Your task to perform on an android device: Check the best rated table lamp on Crate and Barrel Image 0: 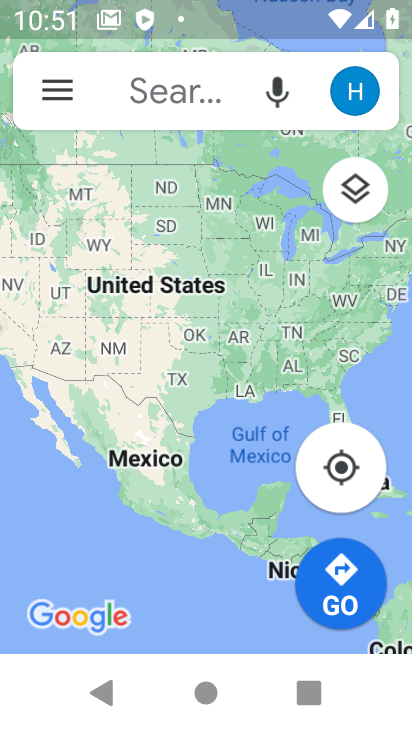
Step 0: press home button
Your task to perform on an android device: Check the best rated table lamp on Crate and Barrel Image 1: 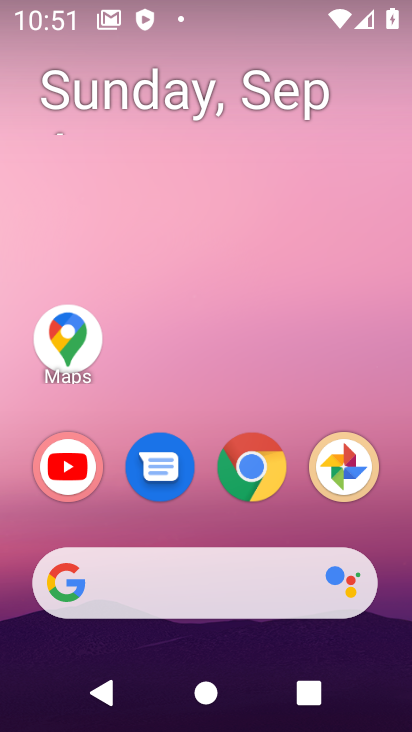
Step 1: click (244, 478)
Your task to perform on an android device: Check the best rated table lamp on Crate and Barrel Image 2: 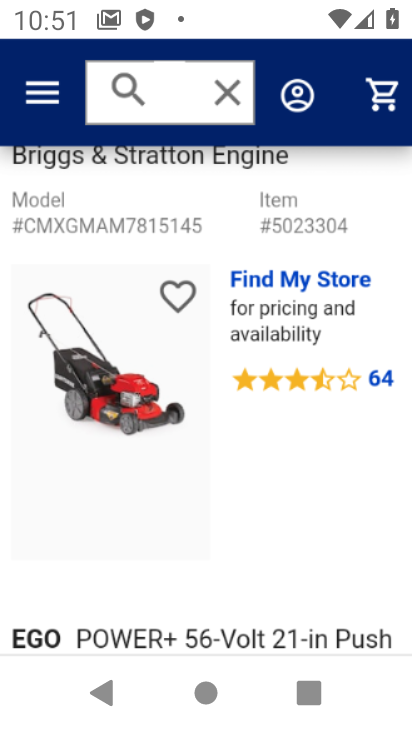
Step 2: click (220, 91)
Your task to perform on an android device: Check the best rated table lamp on Crate and Barrel Image 3: 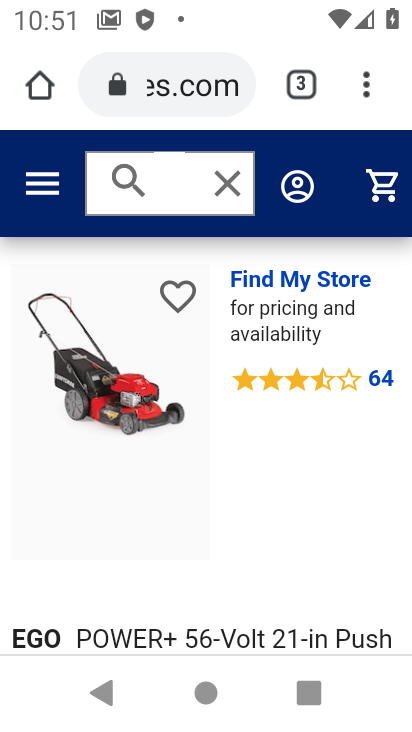
Step 3: click (198, 87)
Your task to perform on an android device: Check the best rated table lamp on Crate and Barrel Image 4: 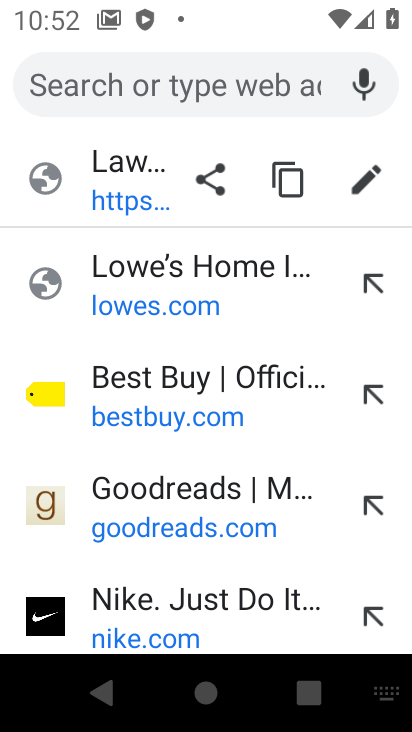
Step 4: type "crate & barrel"
Your task to perform on an android device: Check the best rated table lamp on Crate and Barrel Image 5: 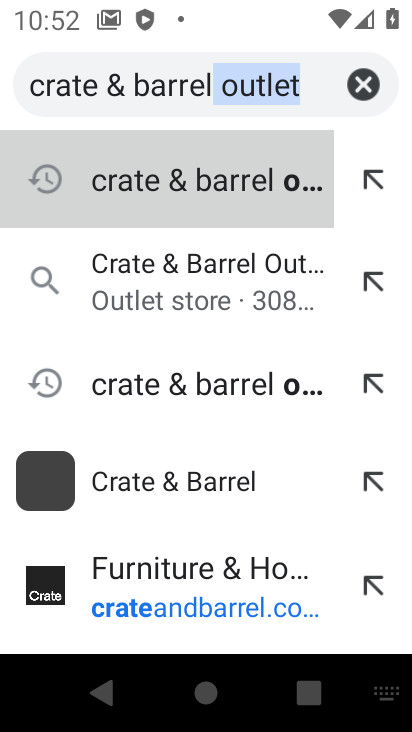
Step 5: type ""
Your task to perform on an android device: Check the best rated table lamp on Crate and Barrel Image 6: 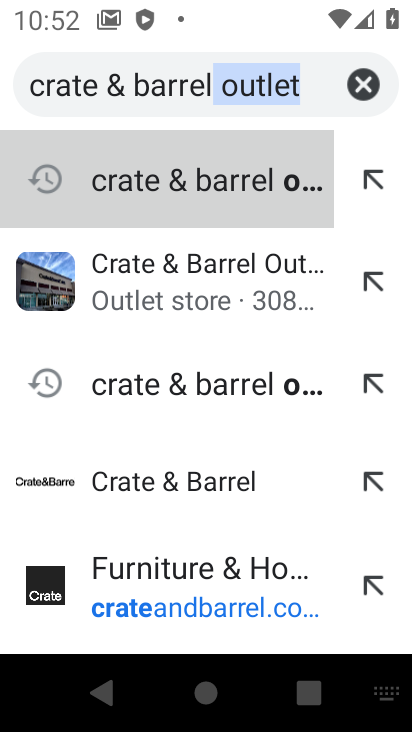
Step 6: click (190, 297)
Your task to perform on an android device: Check the best rated table lamp on Crate and Barrel Image 7: 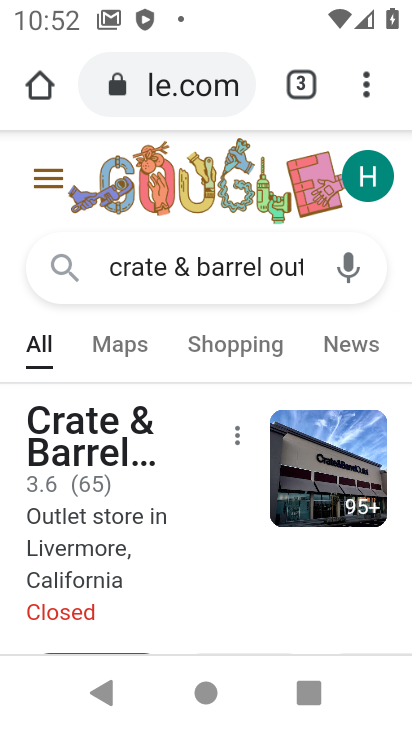
Step 7: drag from (163, 596) to (211, 166)
Your task to perform on an android device: Check the best rated table lamp on Crate and Barrel Image 8: 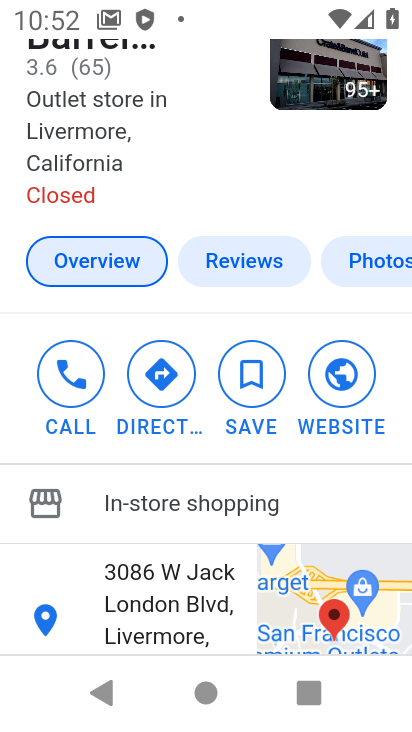
Step 8: drag from (212, 580) to (282, 53)
Your task to perform on an android device: Check the best rated table lamp on Crate and Barrel Image 9: 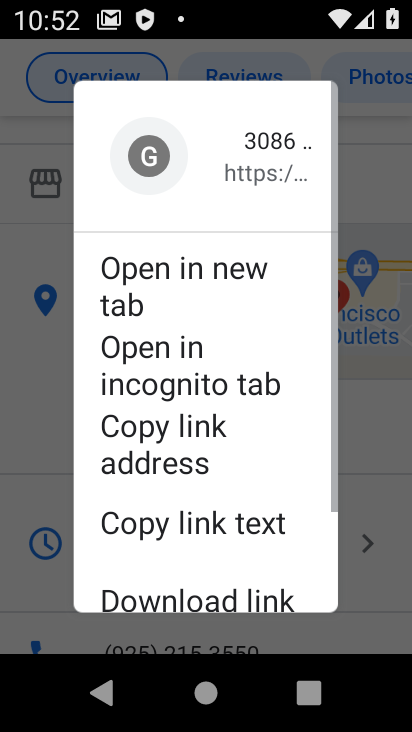
Step 9: drag from (390, 515) to (393, 141)
Your task to perform on an android device: Check the best rated table lamp on Crate and Barrel Image 10: 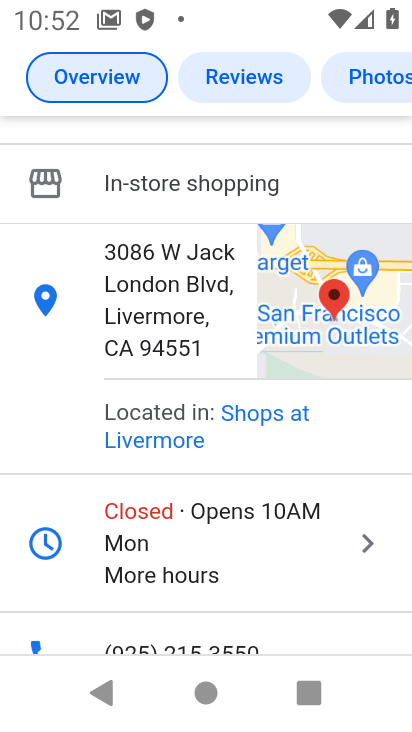
Step 10: drag from (170, 614) to (259, 39)
Your task to perform on an android device: Check the best rated table lamp on Crate and Barrel Image 11: 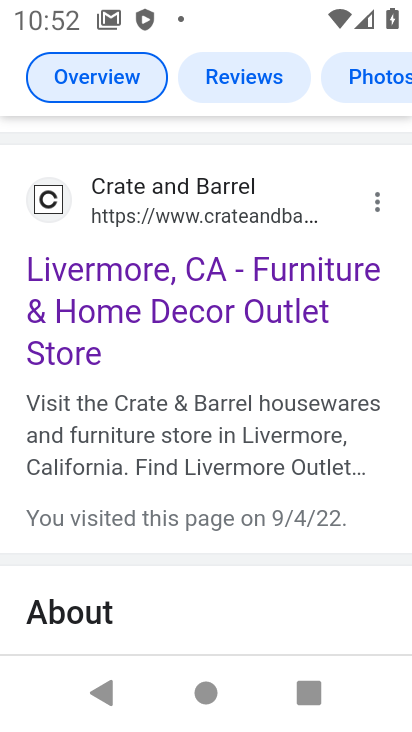
Step 11: click (105, 266)
Your task to perform on an android device: Check the best rated table lamp on Crate and Barrel Image 12: 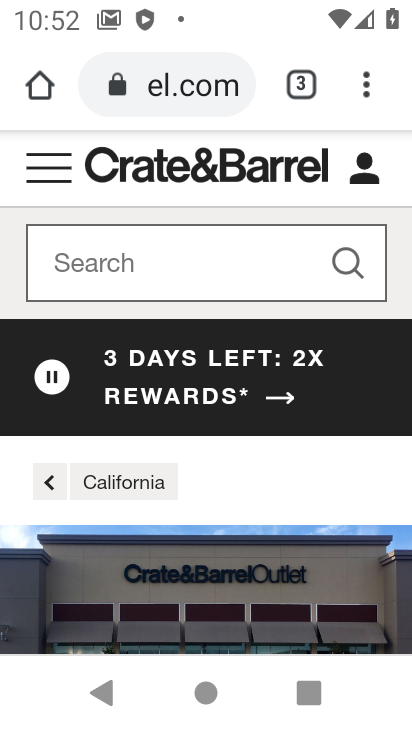
Step 12: click (112, 243)
Your task to perform on an android device: Check the best rated table lamp on Crate and Barrel Image 13: 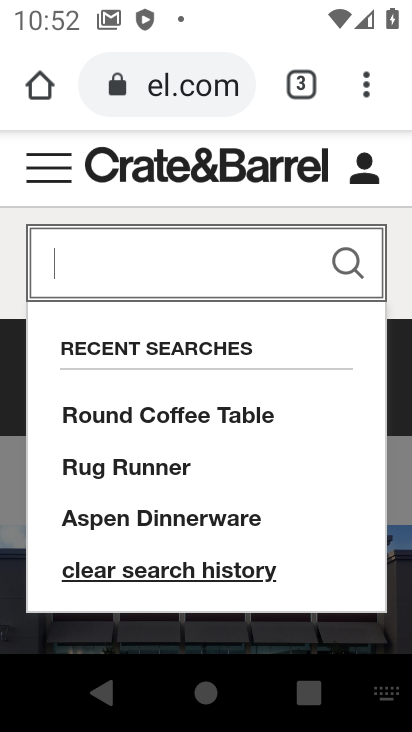
Step 13: type "table lamp"
Your task to perform on an android device: Check the best rated table lamp on Crate and Barrel Image 14: 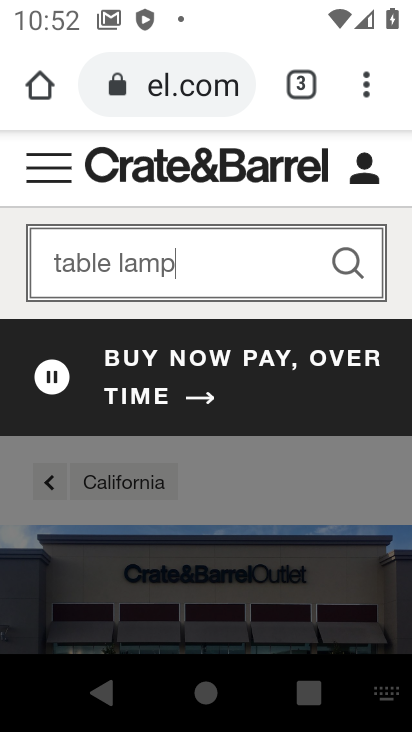
Step 14: type ""
Your task to perform on an android device: Check the best rated table lamp on Crate and Barrel Image 15: 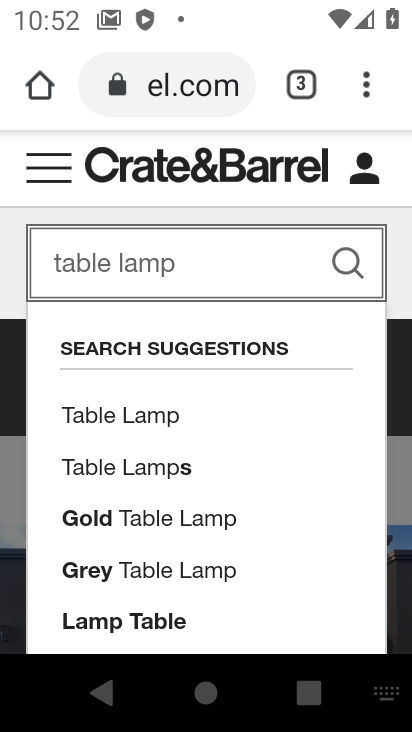
Step 15: click (132, 423)
Your task to perform on an android device: Check the best rated table lamp on Crate and Barrel Image 16: 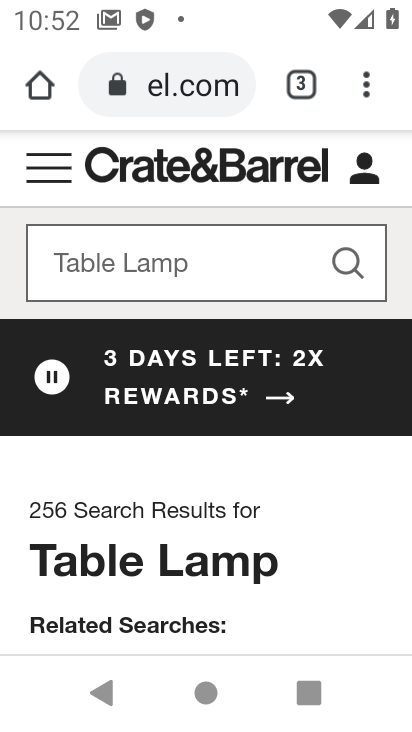
Step 16: drag from (304, 561) to (336, 285)
Your task to perform on an android device: Check the best rated table lamp on Crate and Barrel Image 17: 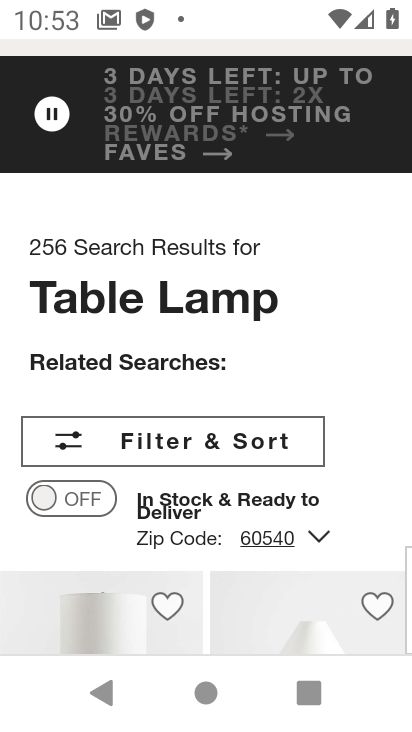
Step 17: drag from (356, 390) to (355, 166)
Your task to perform on an android device: Check the best rated table lamp on Crate and Barrel Image 18: 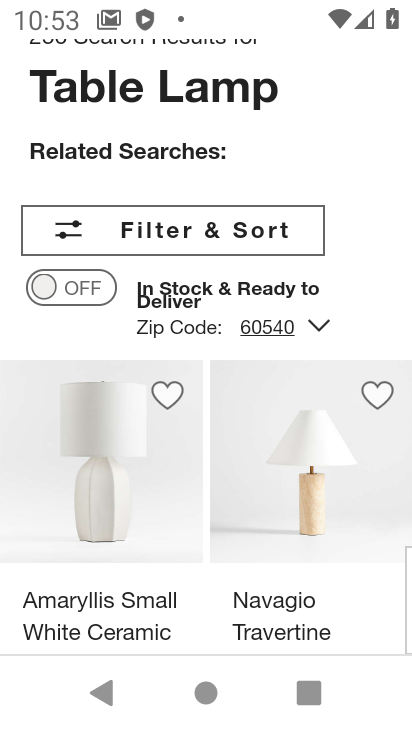
Step 18: drag from (358, 583) to (367, 263)
Your task to perform on an android device: Check the best rated table lamp on Crate and Barrel Image 19: 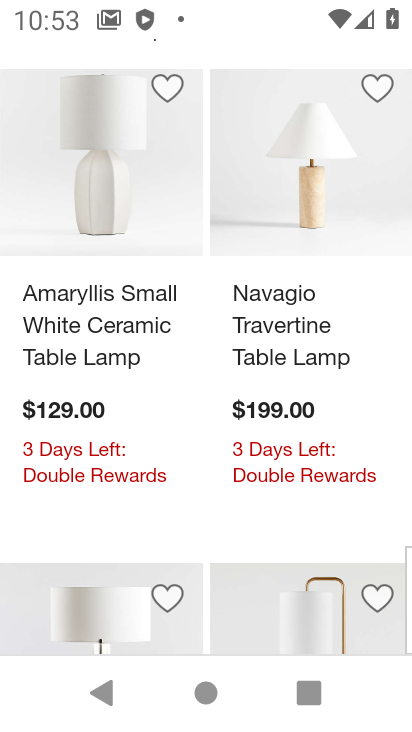
Step 19: drag from (348, 172) to (324, 616)
Your task to perform on an android device: Check the best rated table lamp on Crate and Barrel Image 20: 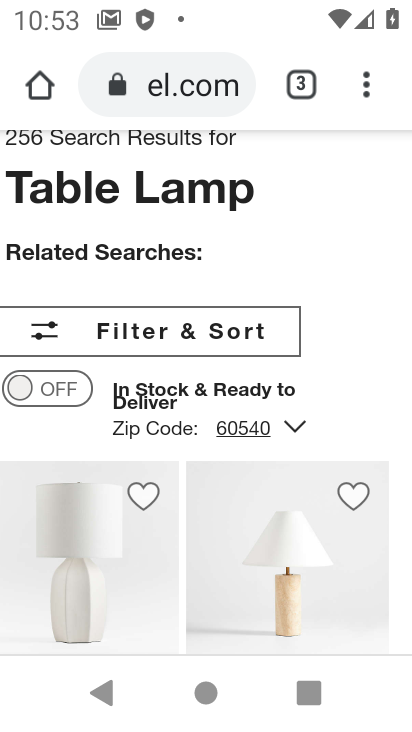
Step 20: click (129, 327)
Your task to perform on an android device: Check the best rated table lamp on Crate and Barrel Image 21: 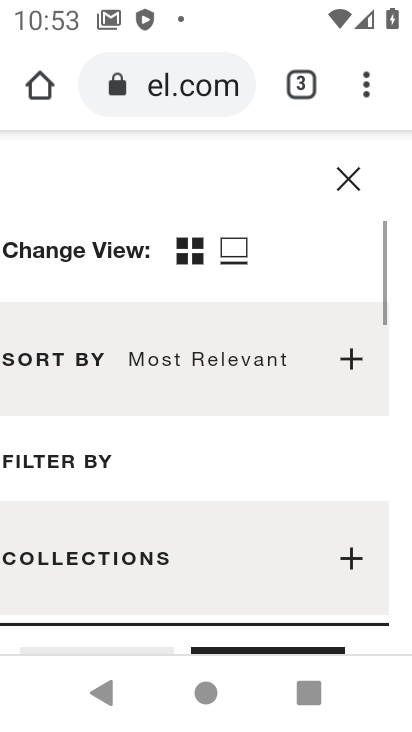
Step 21: drag from (239, 500) to (248, 234)
Your task to perform on an android device: Check the best rated table lamp on Crate and Barrel Image 22: 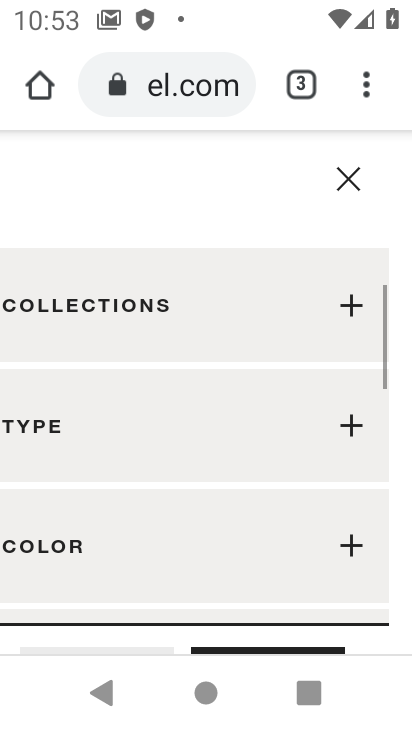
Step 22: drag from (273, 472) to (231, 285)
Your task to perform on an android device: Check the best rated table lamp on Crate and Barrel Image 23: 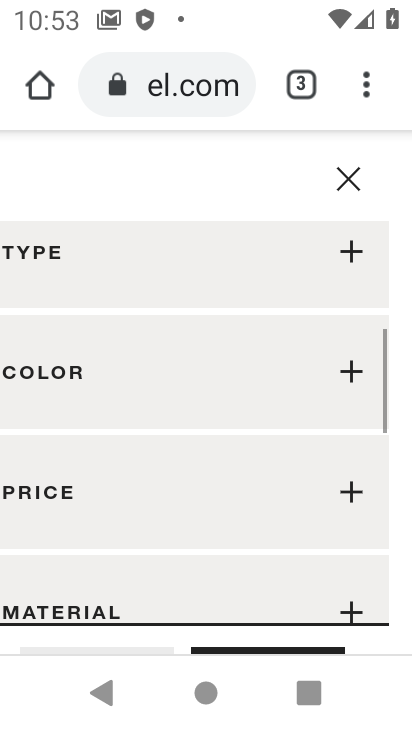
Step 23: drag from (161, 557) to (177, 261)
Your task to perform on an android device: Check the best rated table lamp on Crate and Barrel Image 24: 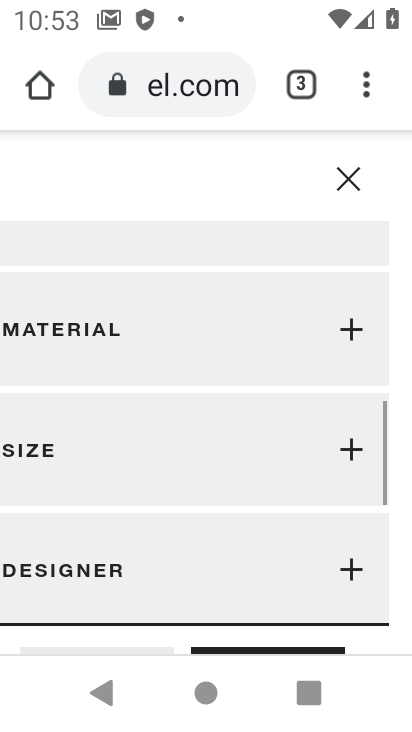
Step 24: drag from (267, 567) to (278, 266)
Your task to perform on an android device: Check the best rated table lamp on Crate and Barrel Image 25: 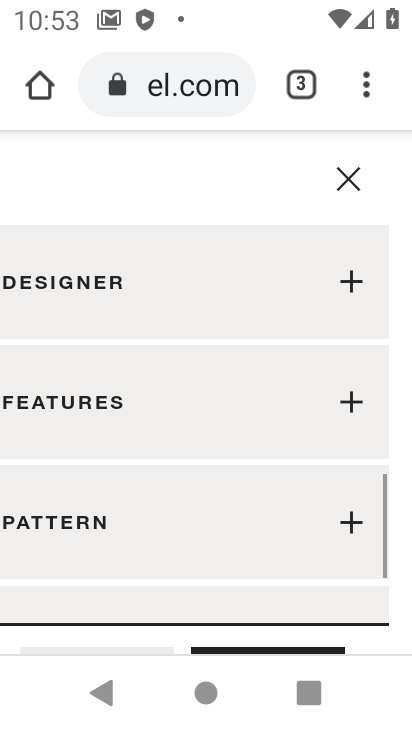
Step 25: drag from (295, 546) to (341, 279)
Your task to perform on an android device: Check the best rated table lamp on Crate and Barrel Image 26: 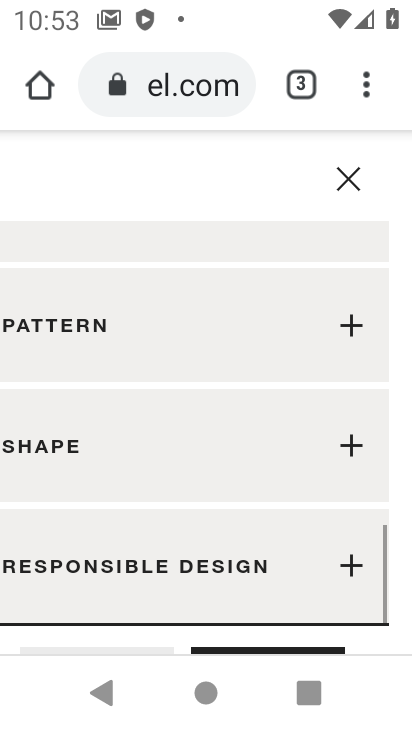
Step 26: drag from (289, 555) to (302, 320)
Your task to perform on an android device: Check the best rated table lamp on Crate and Barrel Image 27: 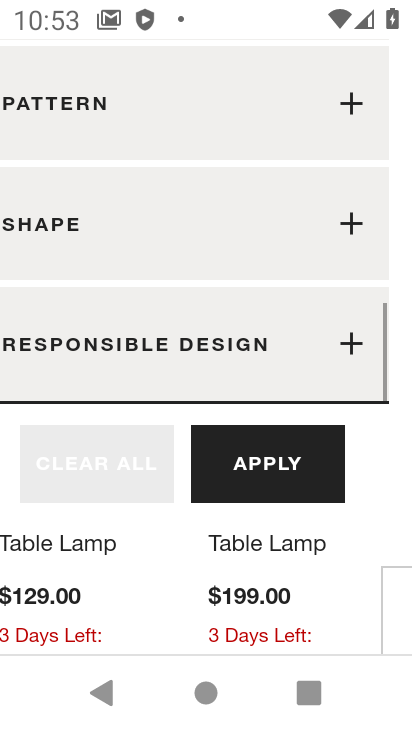
Step 27: drag from (234, 229) to (270, 597)
Your task to perform on an android device: Check the best rated table lamp on Crate and Barrel Image 28: 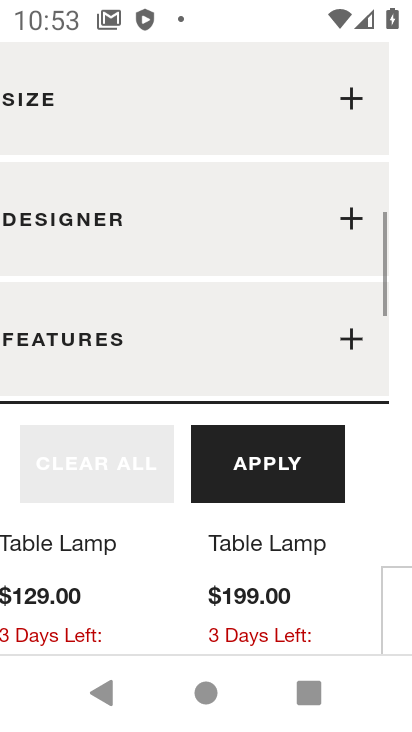
Step 28: drag from (239, 175) to (251, 338)
Your task to perform on an android device: Check the best rated table lamp on Crate and Barrel Image 29: 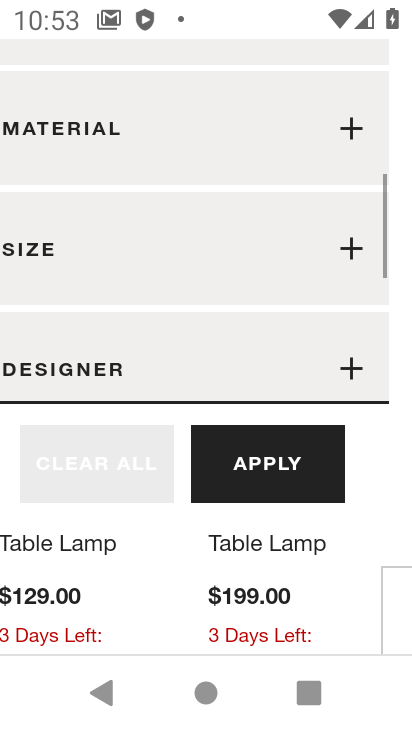
Step 29: drag from (215, 119) to (215, 349)
Your task to perform on an android device: Check the best rated table lamp on Crate and Barrel Image 30: 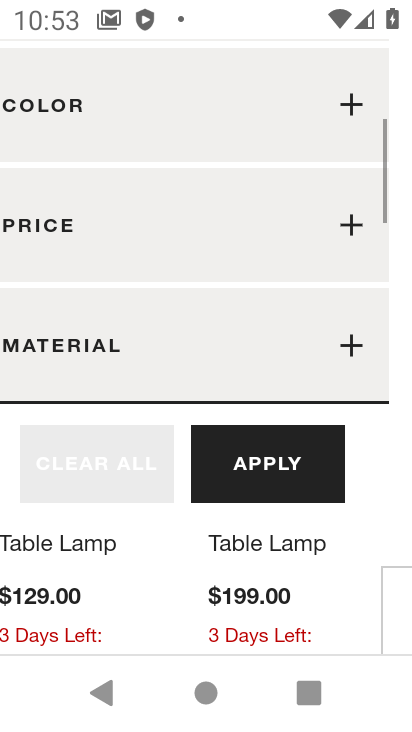
Step 30: drag from (219, 216) to (216, 347)
Your task to perform on an android device: Check the best rated table lamp on Crate and Barrel Image 31: 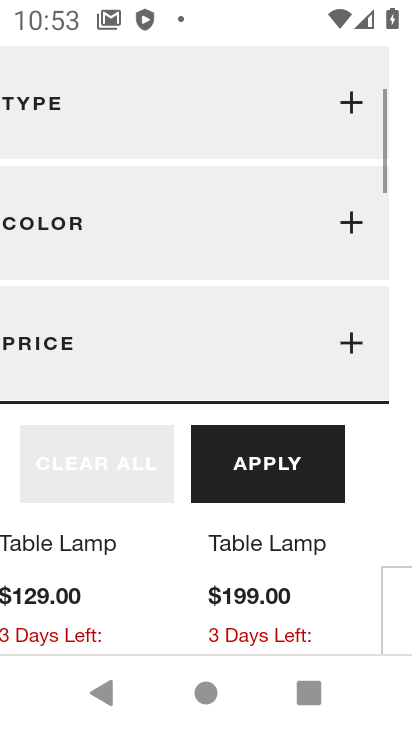
Step 31: drag from (205, 347) to (205, 397)
Your task to perform on an android device: Check the best rated table lamp on Crate and Barrel Image 32: 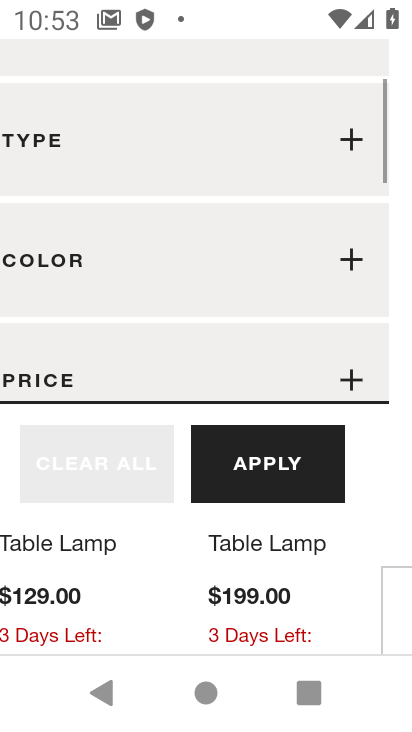
Step 32: drag from (196, 182) to (196, 405)
Your task to perform on an android device: Check the best rated table lamp on Crate and Barrel Image 33: 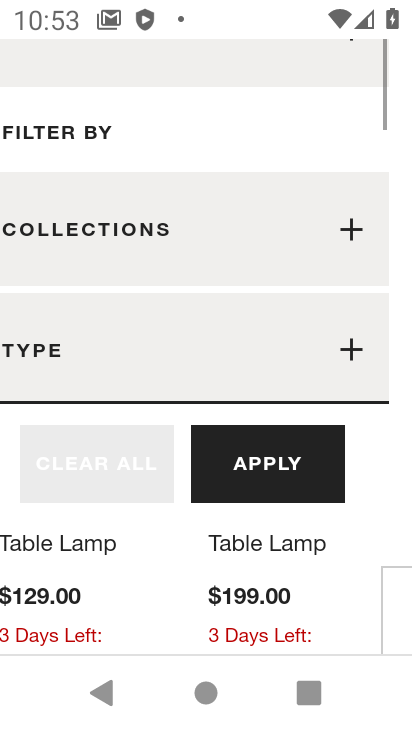
Step 33: drag from (222, 183) to (215, 386)
Your task to perform on an android device: Check the best rated table lamp on Crate and Barrel Image 34: 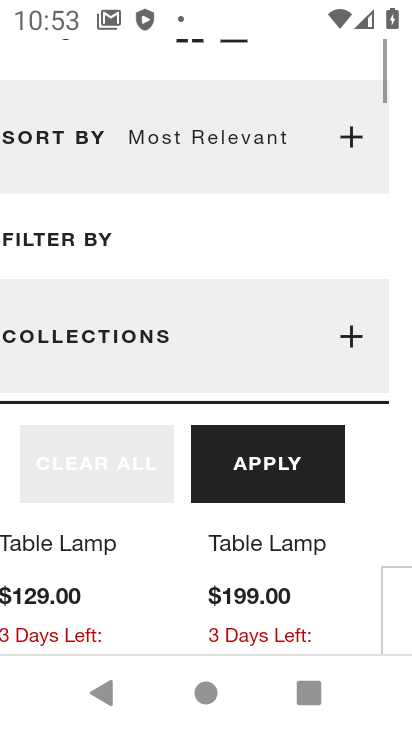
Step 34: drag from (221, 160) to (201, 117)
Your task to perform on an android device: Check the best rated table lamp on Crate and Barrel Image 35: 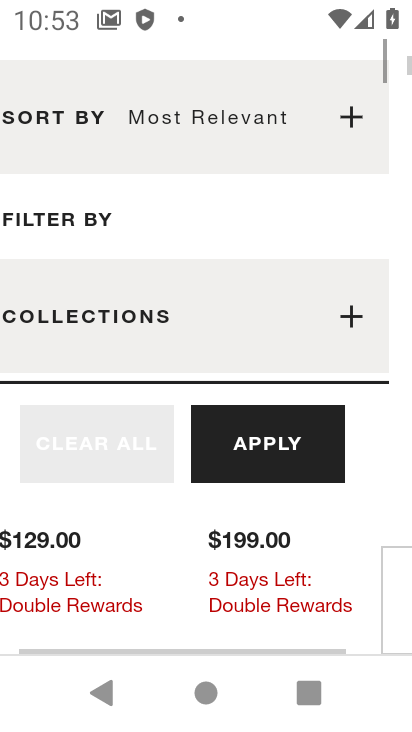
Step 35: drag from (215, 237) to (211, 63)
Your task to perform on an android device: Check the best rated table lamp on Crate and Barrel Image 36: 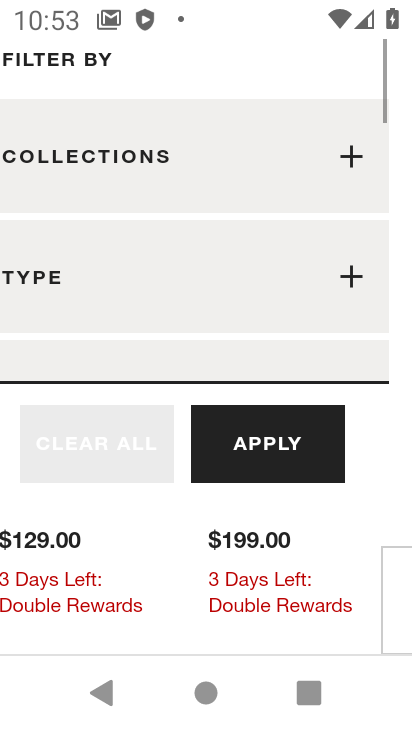
Step 36: drag from (208, 313) to (209, 134)
Your task to perform on an android device: Check the best rated table lamp on Crate and Barrel Image 37: 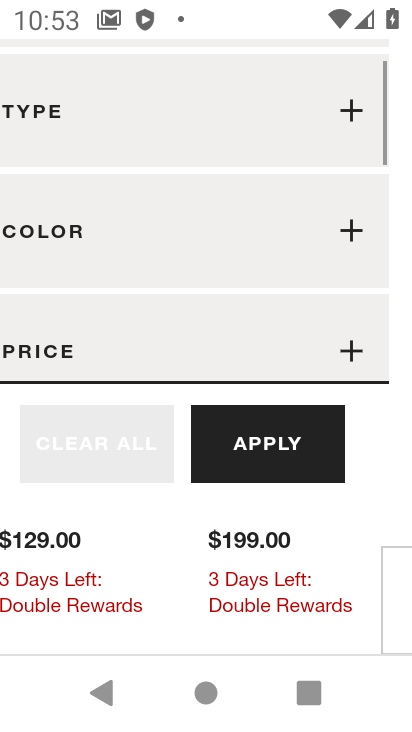
Step 37: click (354, 344)
Your task to perform on an android device: Check the best rated table lamp on Crate and Barrel Image 38: 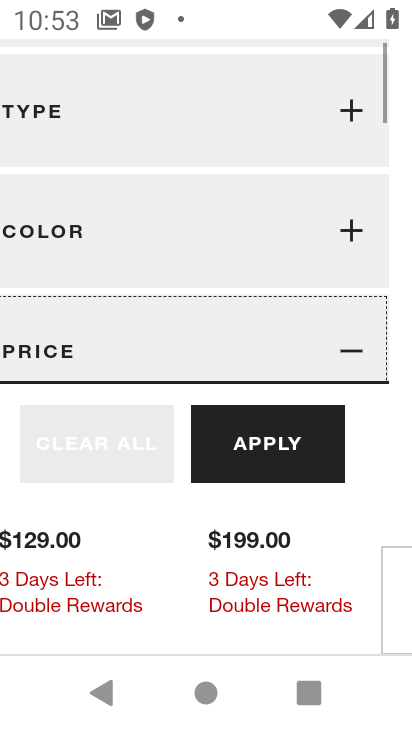
Step 38: drag from (225, 298) to (235, 174)
Your task to perform on an android device: Check the best rated table lamp on Crate and Barrel Image 39: 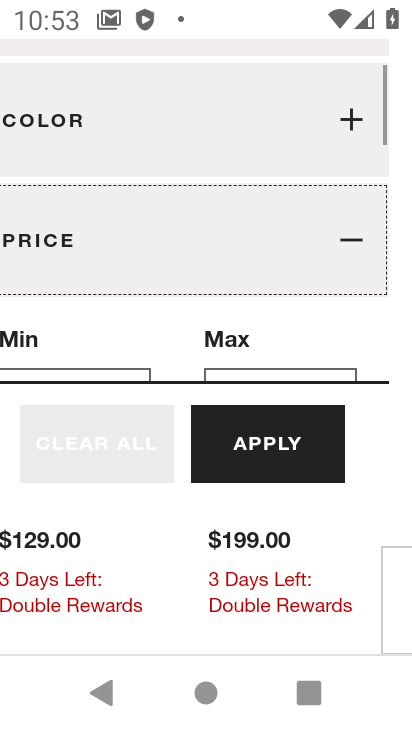
Step 39: drag from (262, 327) to (277, 130)
Your task to perform on an android device: Check the best rated table lamp on Crate and Barrel Image 40: 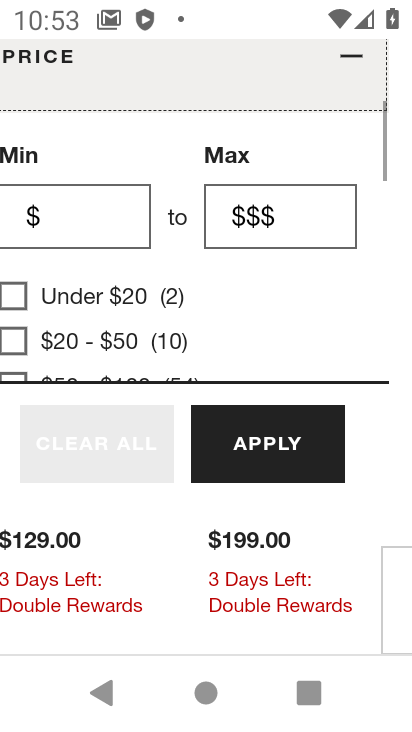
Step 40: drag from (356, 326) to (356, 110)
Your task to perform on an android device: Check the best rated table lamp on Crate and Barrel Image 41: 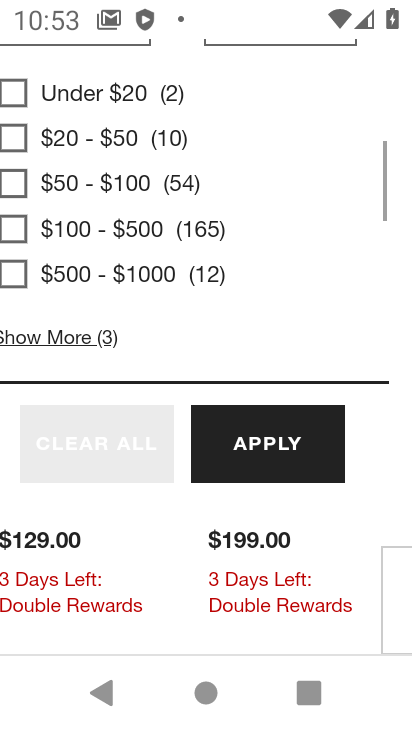
Step 41: click (14, 272)
Your task to perform on an android device: Check the best rated table lamp on Crate and Barrel Image 42: 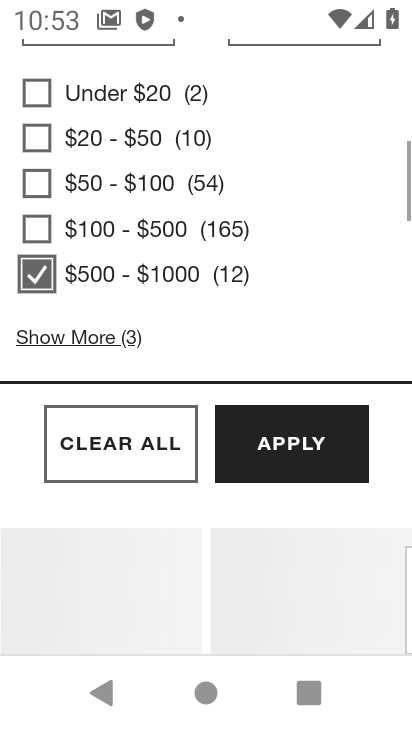
Step 42: click (281, 452)
Your task to perform on an android device: Check the best rated table lamp on Crate and Barrel Image 43: 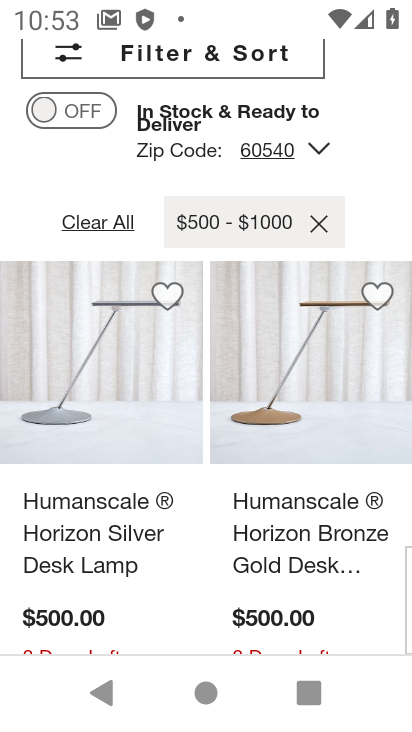
Step 43: task complete